Your task to perform on an android device: Go to internet settings Image 0: 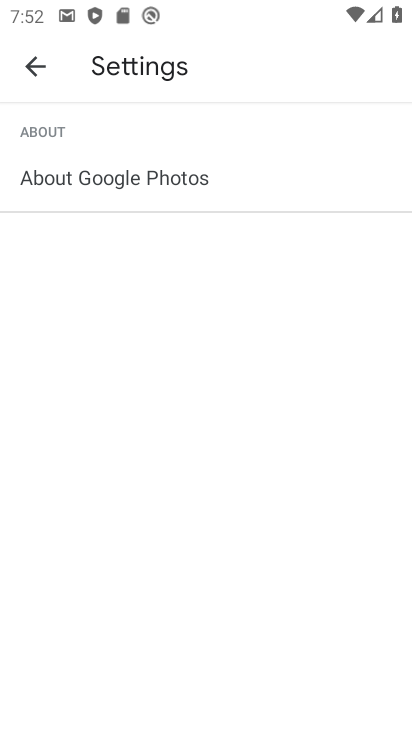
Step 0: press home button
Your task to perform on an android device: Go to internet settings Image 1: 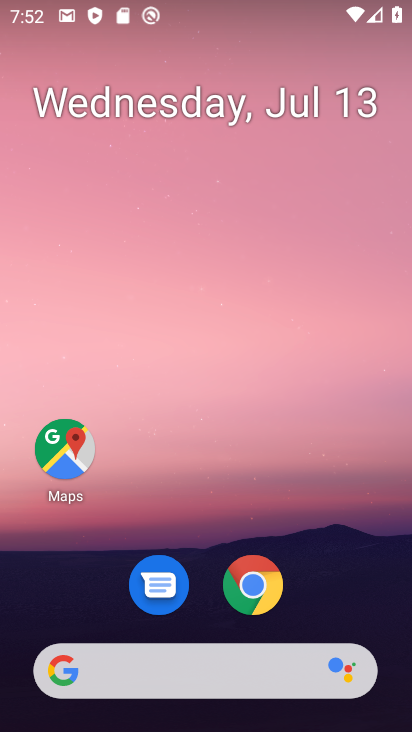
Step 1: drag from (321, 578) to (279, 48)
Your task to perform on an android device: Go to internet settings Image 2: 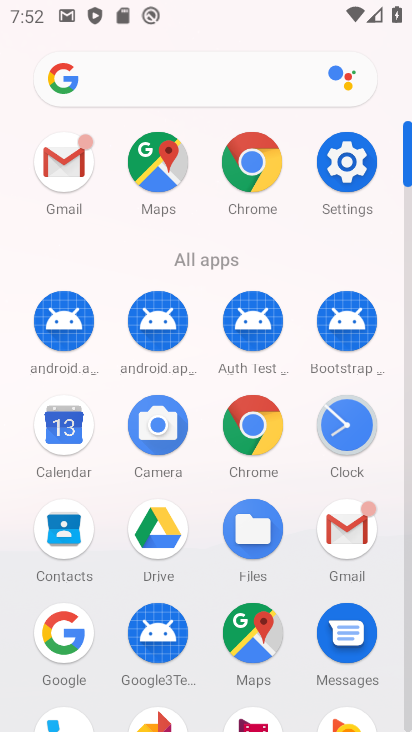
Step 2: click (341, 166)
Your task to perform on an android device: Go to internet settings Image 3: 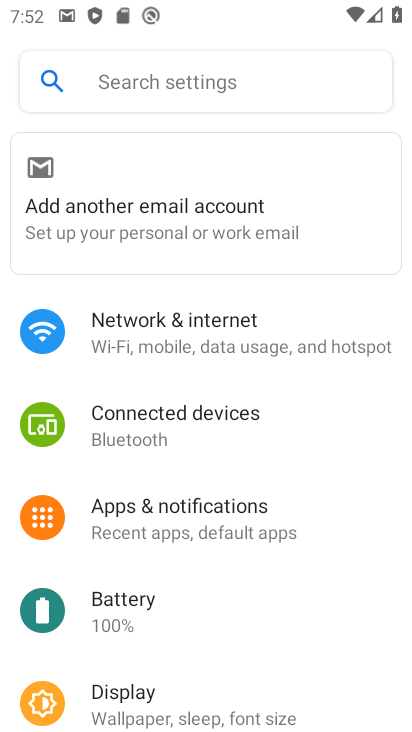
Step 3: click (248, 345)
Your task to perform on an android device: Go to internet settings Image 4: 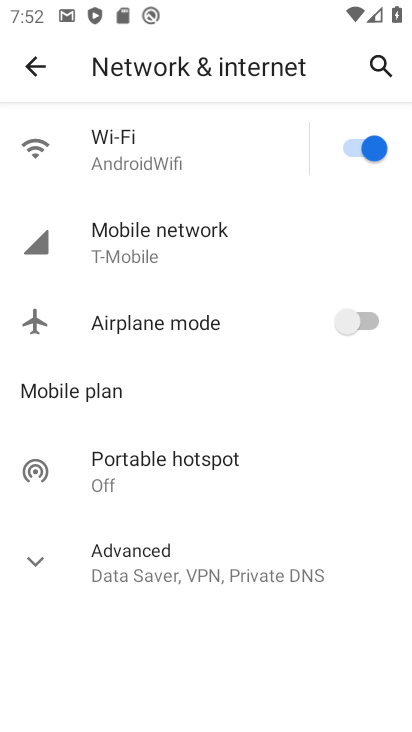
Step 4: task complete